Your task to perform on an android device: Do I have any events this weekend? Image 0: 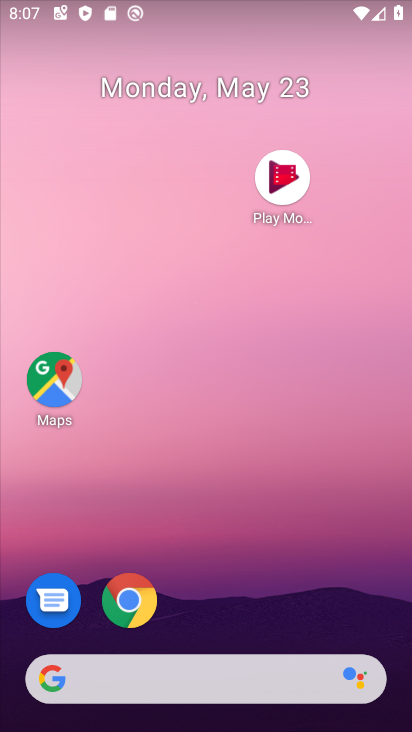
Step 0: drag from (304, 711) to (247, 165)
Your task to perform on an android device: Do I have any events this weekend? Image 1: 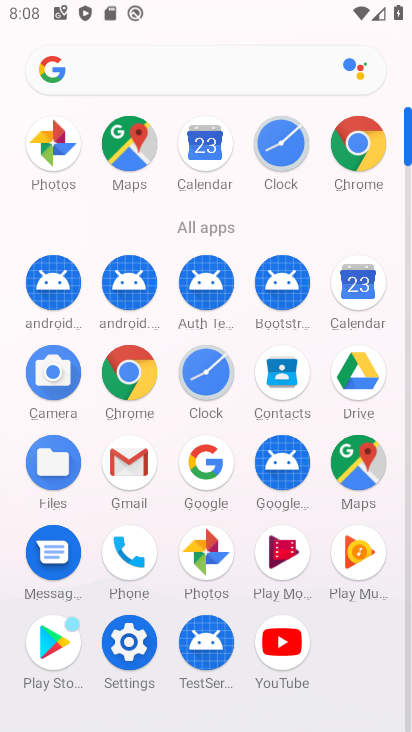
Step 1: click (355, 281)
Your task to perform on an android device: Do I have any events this weekend? Image 2: 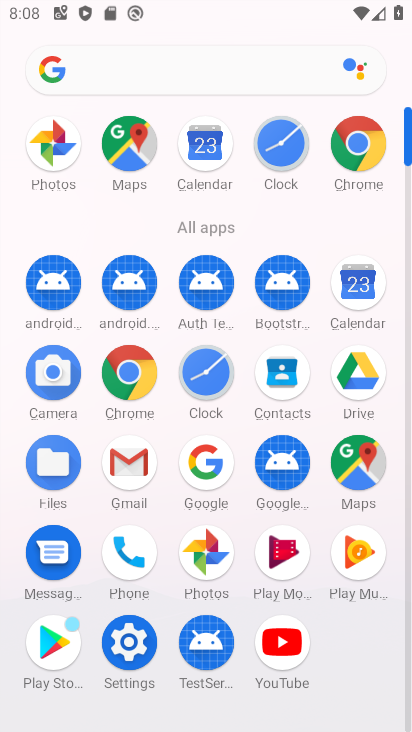
Step 2: click (354, 280)
Your task to perform on an android device: Do I have any events this weekend? Image 3: 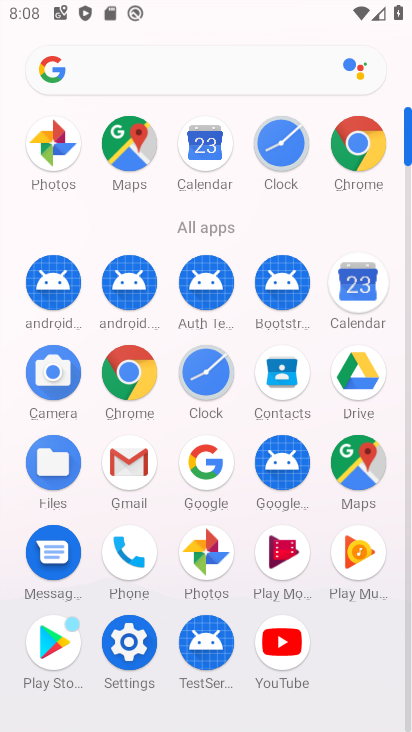
Step 3: click (354, 280)
Your task to perform on an android device: Do I have any events this weekend? Image 4: 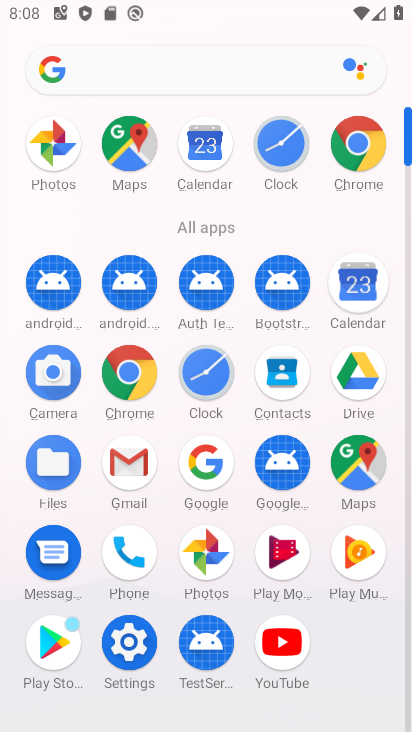
Step 4: click (354, 280)
Your task to perform on an android device: Do I have any events this weekend? Image 5: 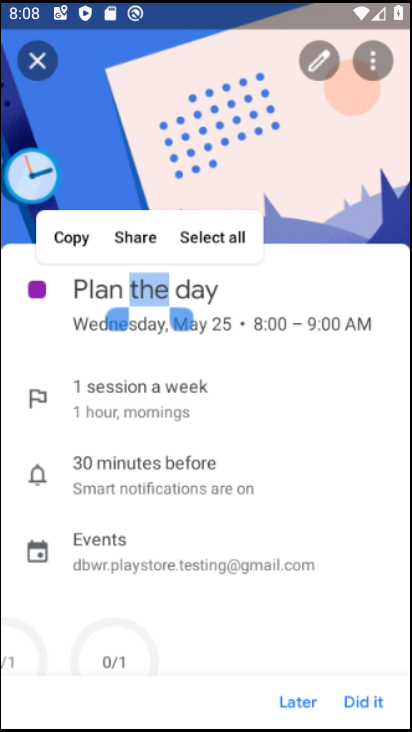
Step 5: click (354, 280)
Your task to perform on an android device: Do I have any events this weekend? Image 6: 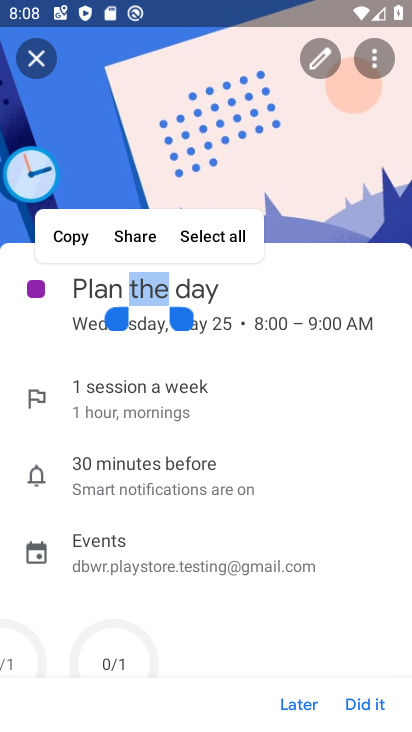
Step 6: click (289, 699)
Your task to perform on an android device: Do I have any events this weekend? Image 7: 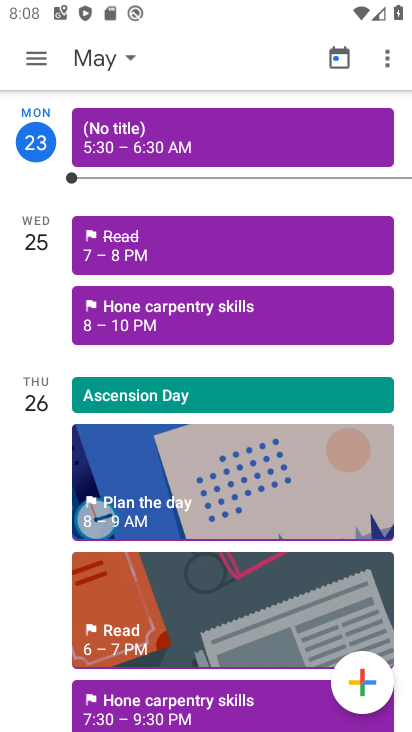
Step 7: click (91, 73)
Your task to perform on an android device: Do I have any events this weekend? Image 8: 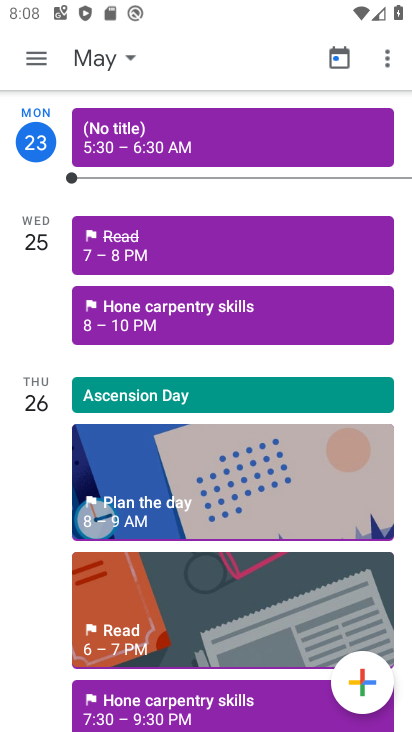
Step 8: click (172, 38)
Your task to perform on an android device: Do I have any events this weekend? Image 9: 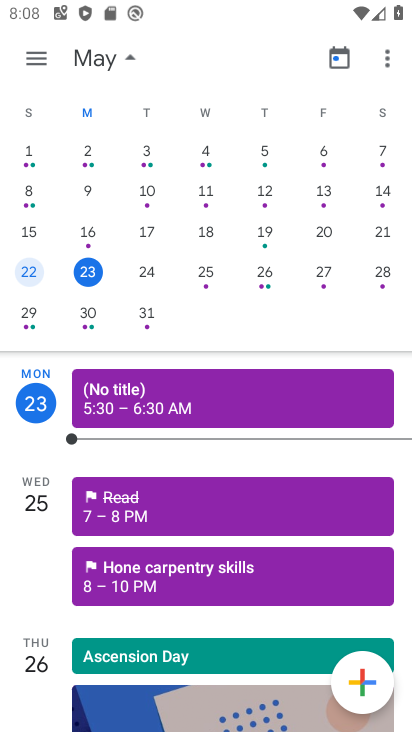
Step 9: click (164, 58)
Your task to perform on an android device: Do I have any events this weekend? Image 10: 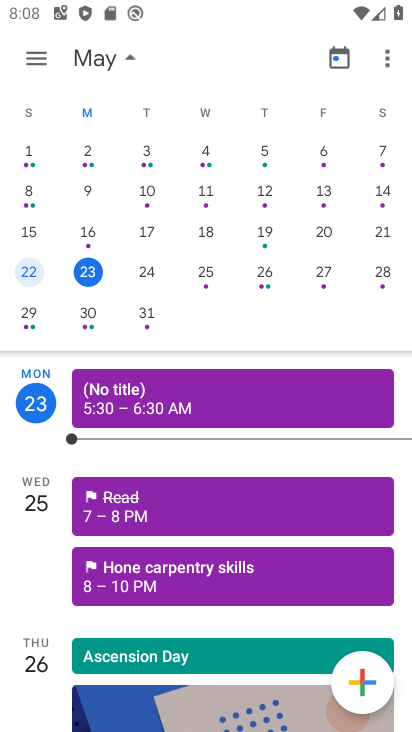
Step 10: drag from (141, 283) to (128, 180)
Your task to perform on an android device: Do I have any events this weekend? Image 11: 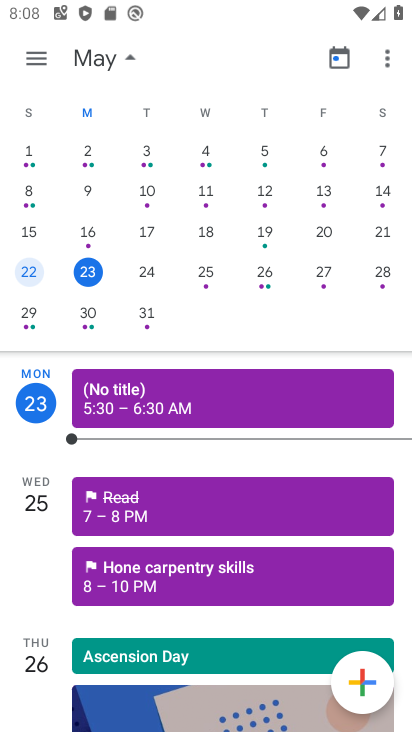
Step 11: click (164, 26)
Your task to perform on an android device: Do I have any events this weekend? Image 12: 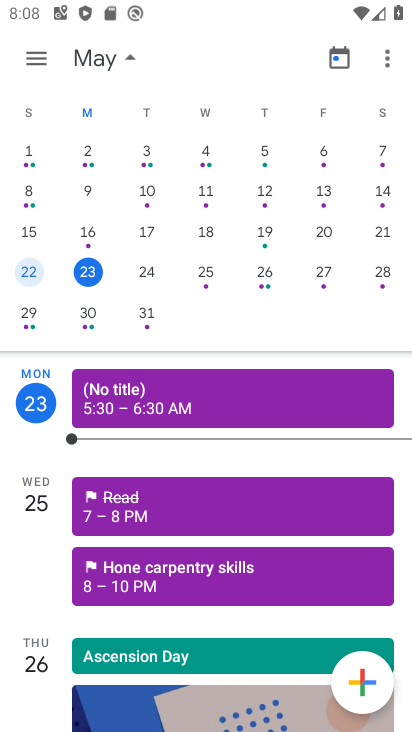
Step 12: task complete